Your task to perform on an android device: What's on my calendar today? Image 0: 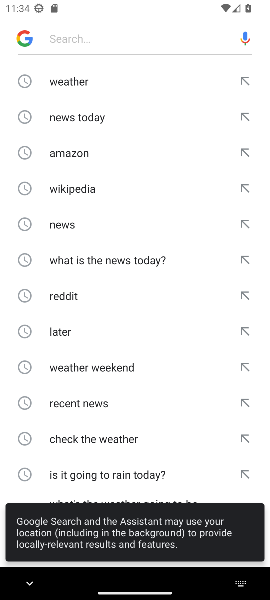
Step 0: press home button
Your task to perform on an android device: What's on my calendar today? Image 1: 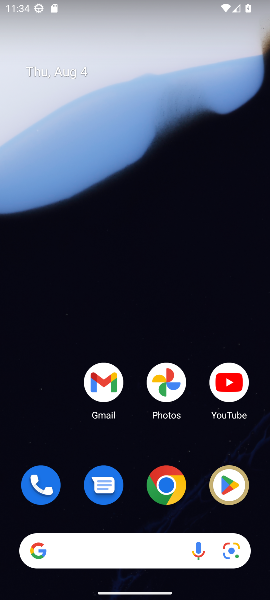
Step 1: drag from (138, 514) to (148, 71)
Your task to perform on an android device: What's on my calendar today? Image 2: 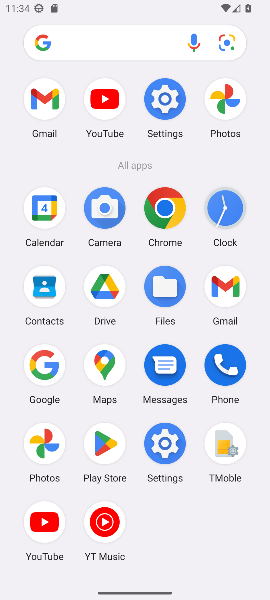
Step 2: click (47, 210)
Your task to perform on an android device: What's on my calendar today? Image 3: 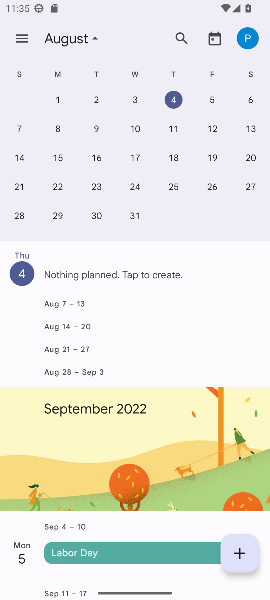
Step 3: task complete